Your task to perform on an android device: turn on translation in the chrome app Image 0: 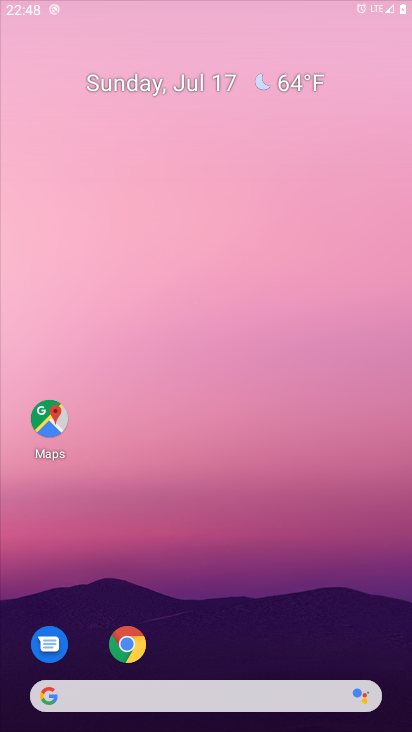
Step 0: press home button
Your task to perform on an android device: turn on translation in the chrome app Image 1: 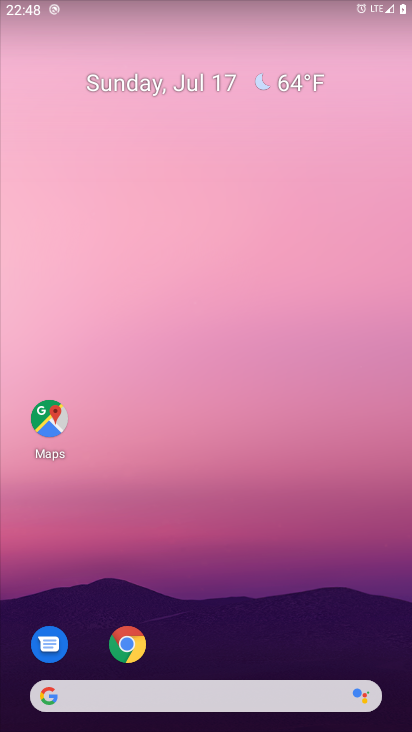
Step 1: click (128, 649)
Your task to perform on an android device: turn on translation in the chrome app Image 2: 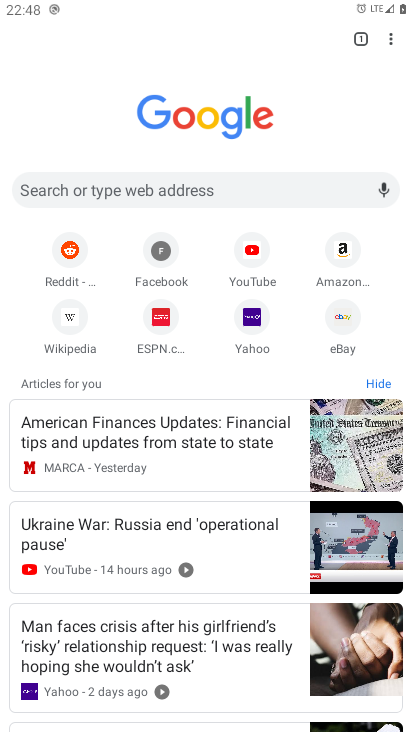
Step 2: drag from (390, 32) to (244, 332)
Your task to perform on an android device: turn on translation in the chrome app Image 3: 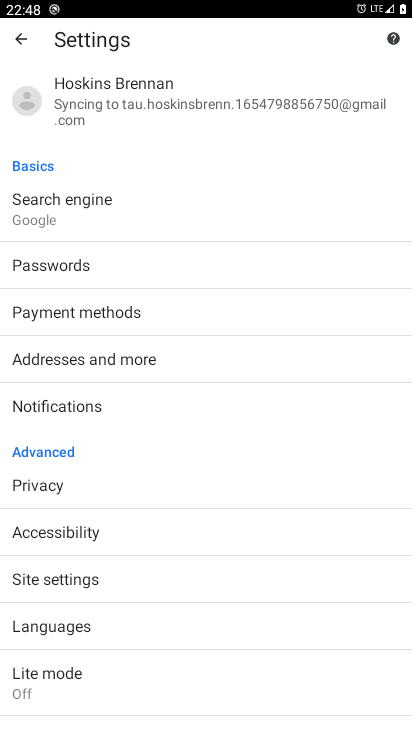
Step 3: click (121, 617)
Your task to perform on an android device: turn on translation in the chrome app Image 4: 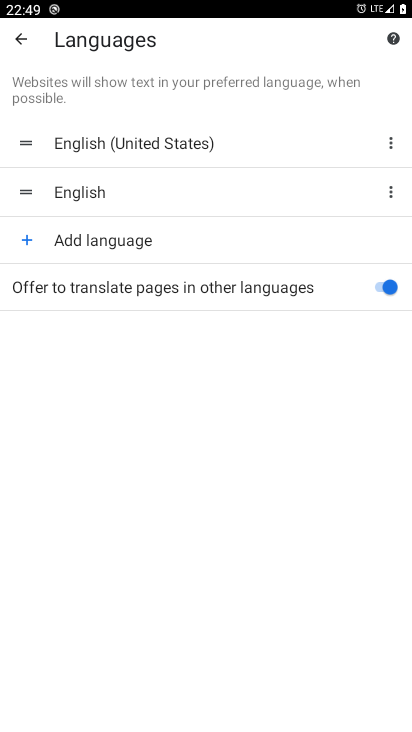
Step 4: task complete